Your task to perform on an android device: change keyboard looks Image 0: 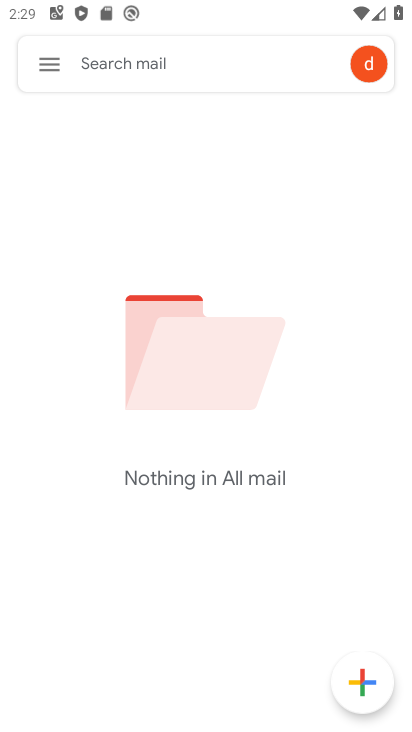
Step 0: press home button
Your task to perform on an android device: change keyboard looks Image 1: 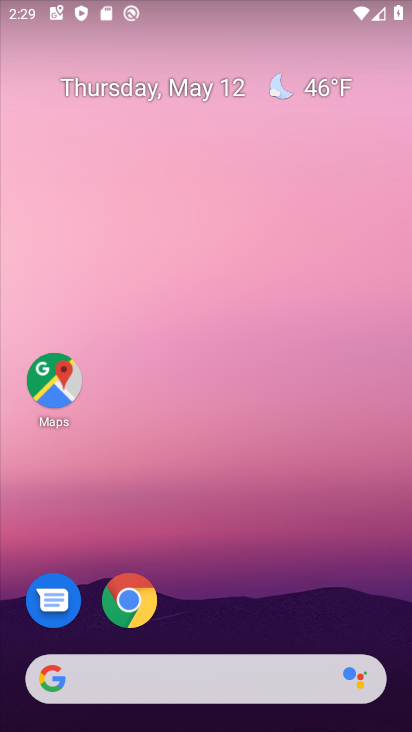
Step 1: drag from (214, 612) to (205, 193)
Your task to perform on an android device: change keyboard looks Image 2: 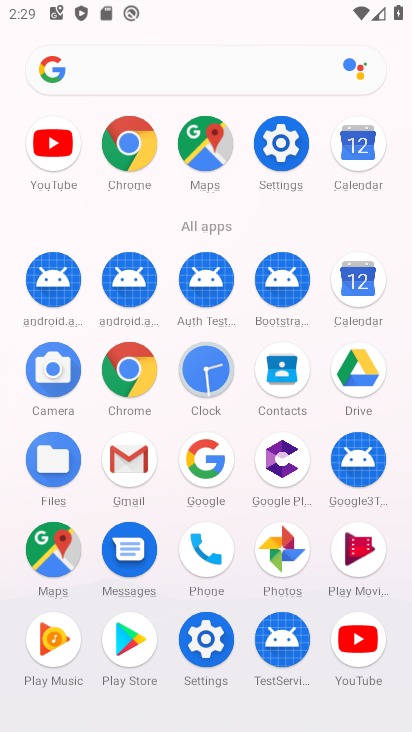
Step 2: click (203, 654)
Your task to perform on an android device: change keyboard looks Image 3: 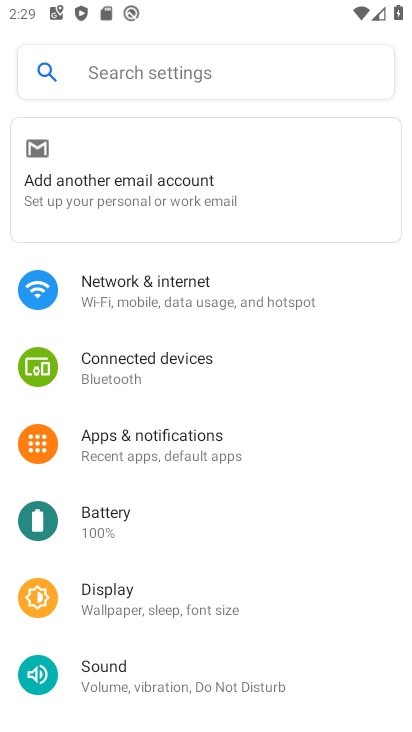
Step 3: drag from (179, 593) to (280, 79)
Your task to perform on an android device: change keyboard looks Image 4: 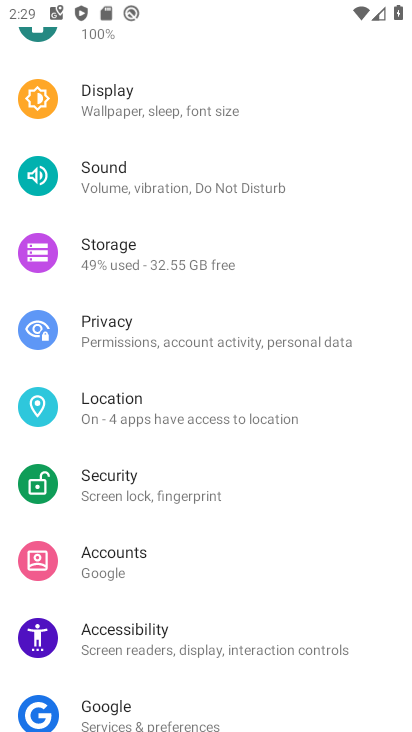
Step 4: drag from (227, 537) to (275, 158)
Your task to perform on an android device: change keyboard looks Image 5: 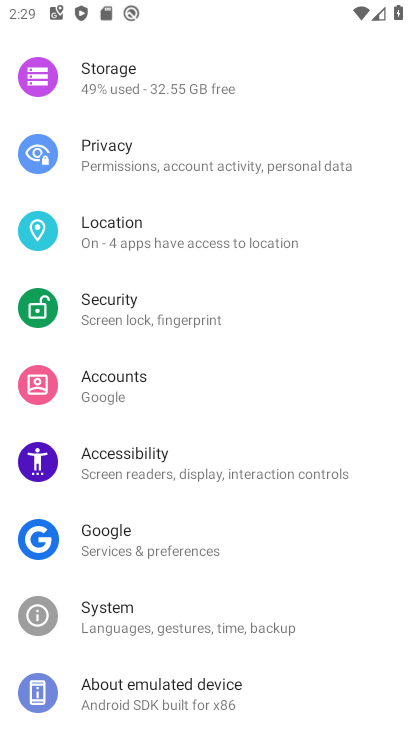
Step 5: click (143, 614)
Your task to perform on an android device: change keyboard looks Image 6: 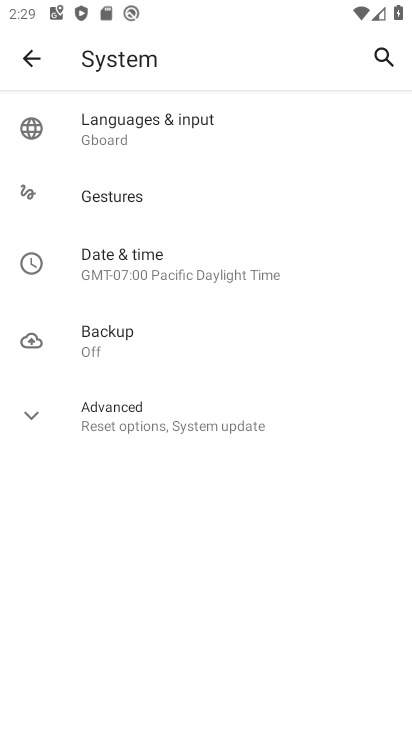
Step 6: click (153, 125)
Your task to perform on an android device: change keyboard looks Image 7: 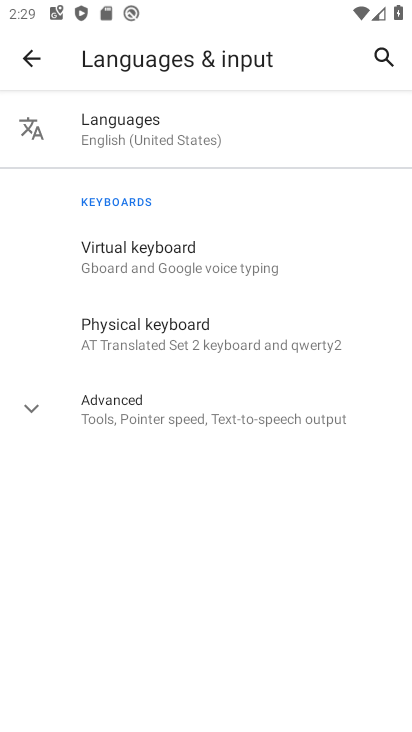
Step 7: click (148, 257)
Your task to perform on an android device: change keyboard looks Image 8: 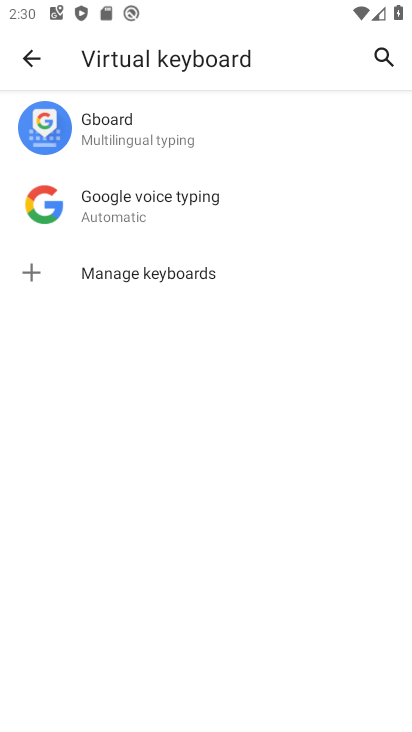
Step 8: click (173, 137)
Your task to perform on an android device: change keyboard looks Image 9: 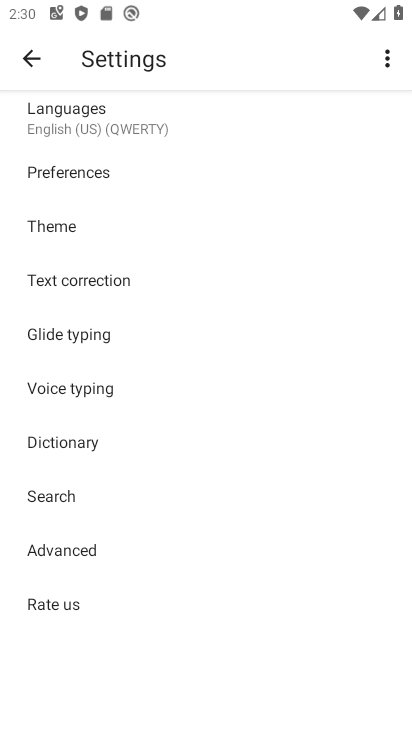
Step 9: click (107, 236)
Your task to perform on an android device: change keyboard looks Image 10: 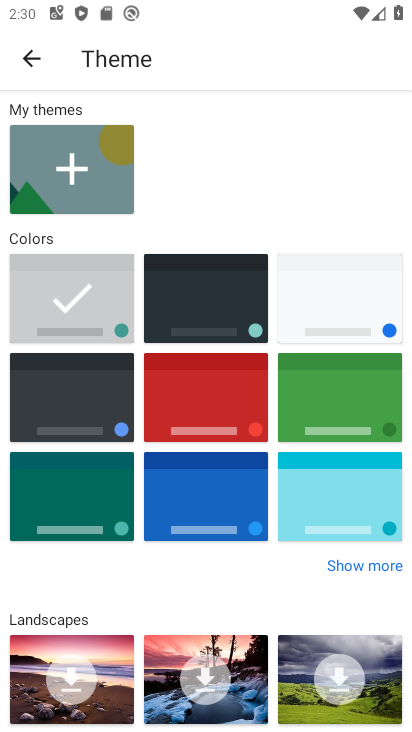
Step 10: click (199, 394)
Your task to perform on an android device: change keyboard looks Image 11: 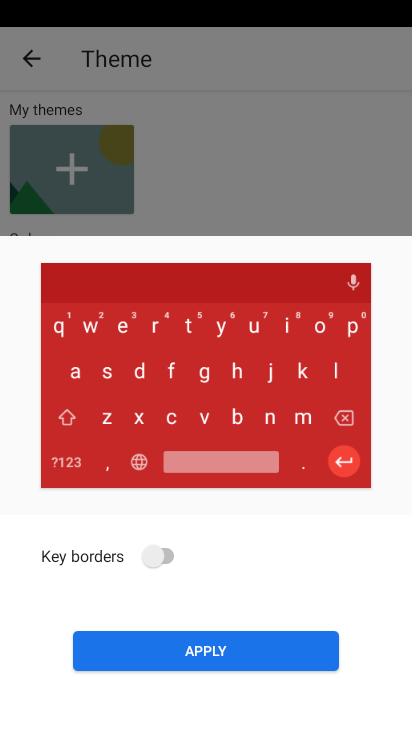
Step 11: click (205, 641)
Your task to perform on an android device: change keyboard looks Image 12: 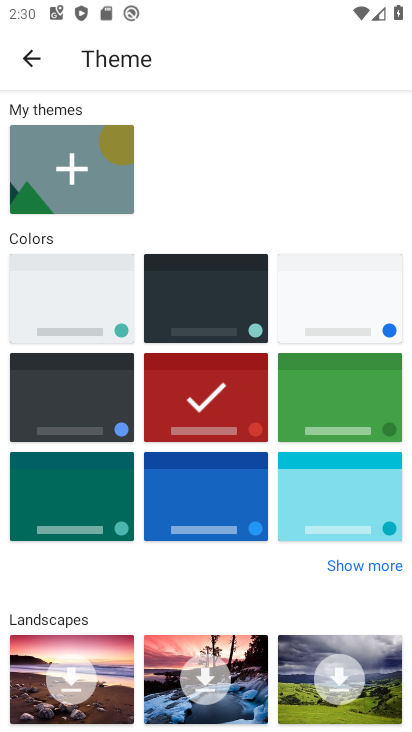
Step 12: task complete